Your task to perform on an android device: What's the weather? Image 0: 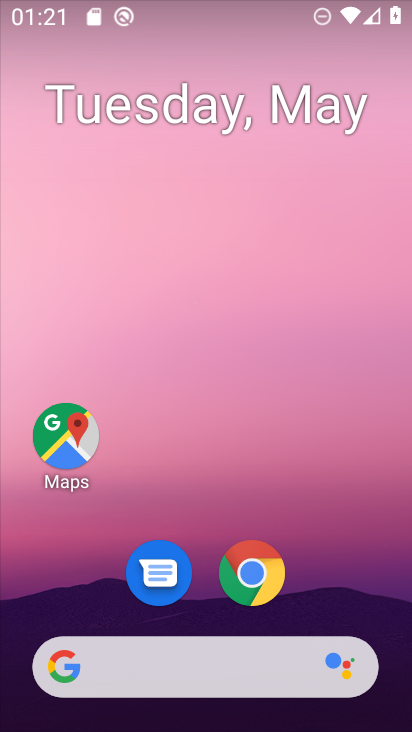
Step 0: drag from (317, 543) to (174, 59)
Your task to perform on an android device: What's the weather? Image 1: 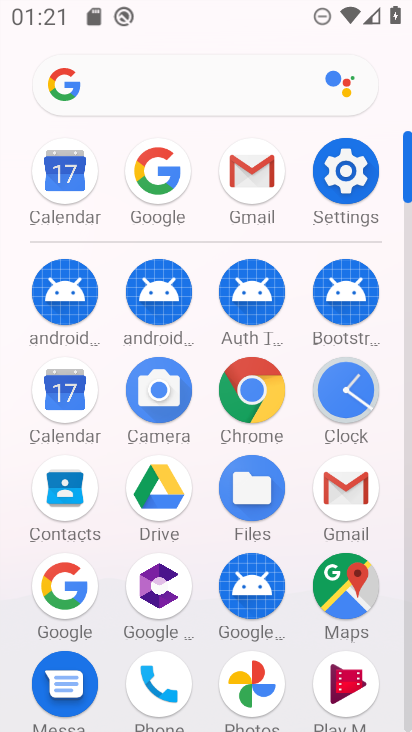
Step 1: click (70, 595)
Your task to perform on an android device: What's the weather? Image 2: 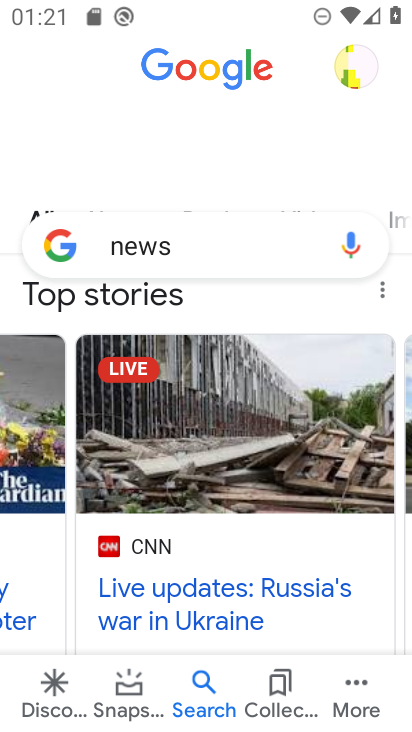
Step 2: click (191, 249)
Your task to perform on an android device: What's the weather? Image 3: 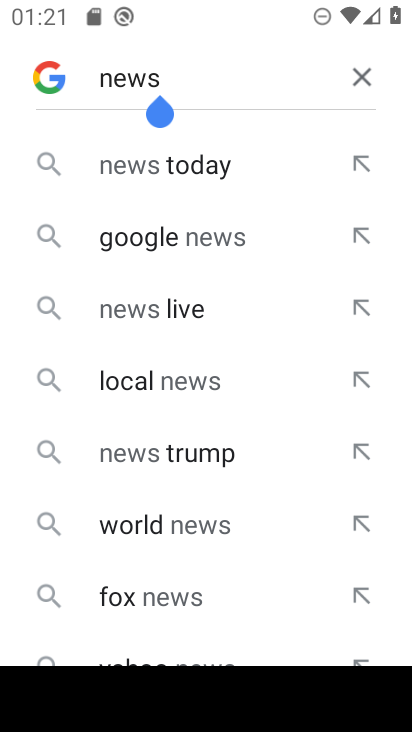
Step 3: click (357, 73)
Your task to perform on an android device: What's the weather? Image 4: 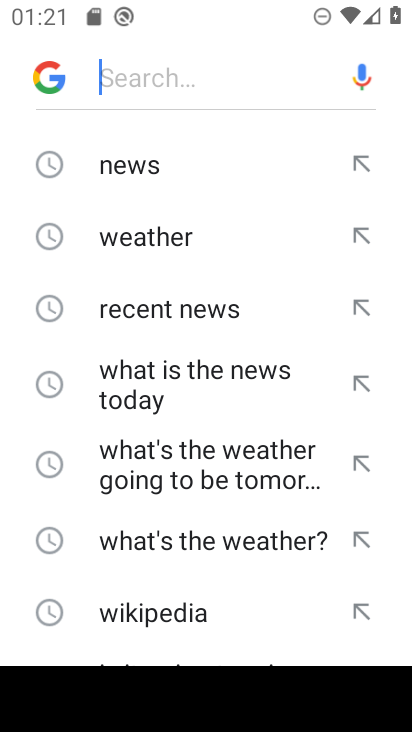
Step 4: click (173, 235)
Your task to perform on an android device: What's the weather? Image 5: 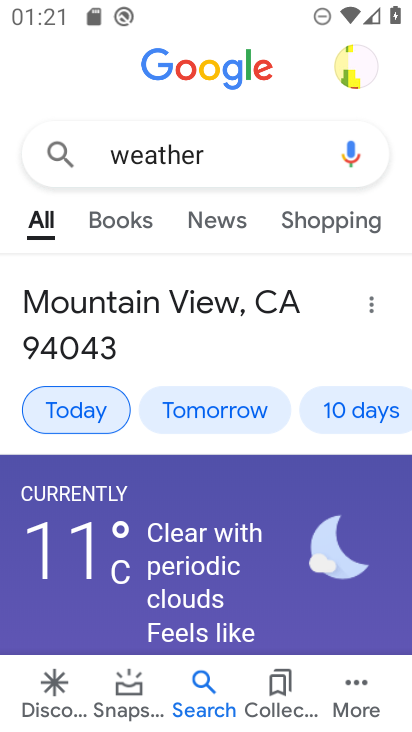
Step 5: task complete